Your task to perform on an android device: turn off improve location accuracy Image 0: 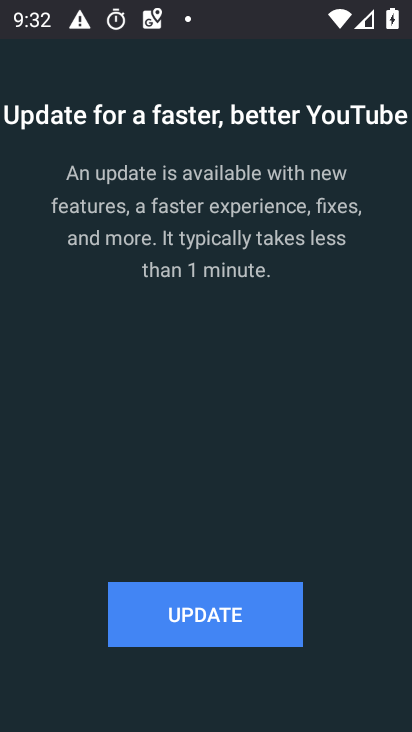
Step 0: press home button
Your task to perform on an android device: turn off improve location accuracy Image 1: 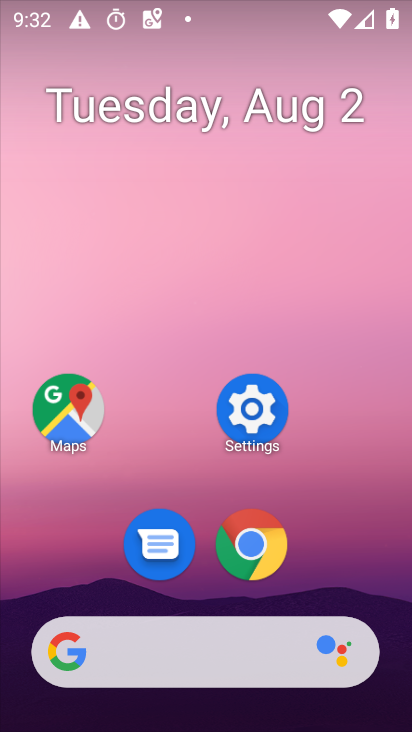
Step 1: click (250, 405)
Your task to perform on an android device: turn off improve location accuracy Image 2: 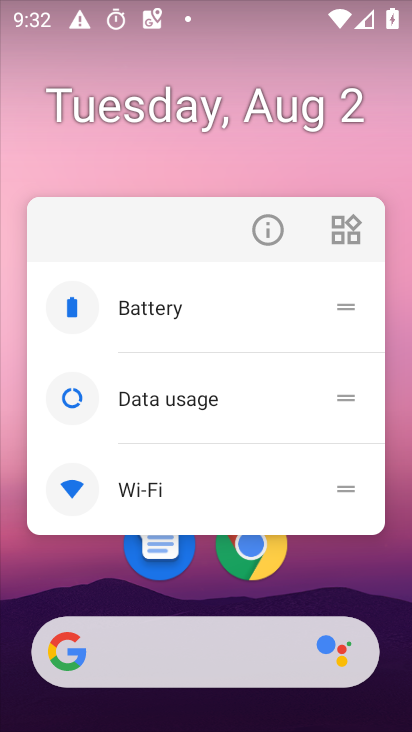
Step 2: click (352, 571)
Your task to perform on an android device: turn off improve location accuracy Image 3: 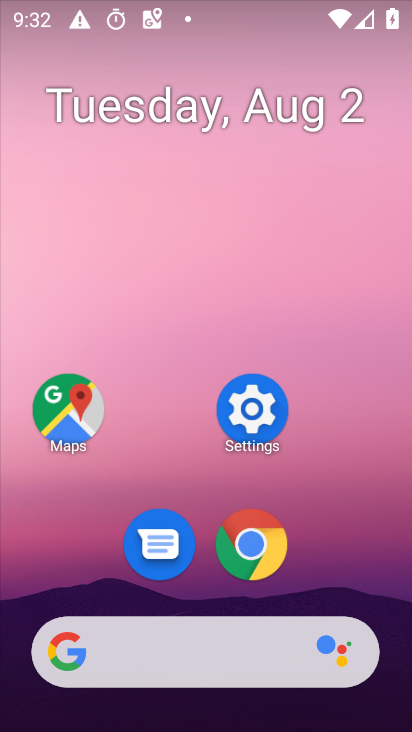
Step 3: click (244, 403)
Your task to perform on an android device: turn off improve location accuracy Image 4: 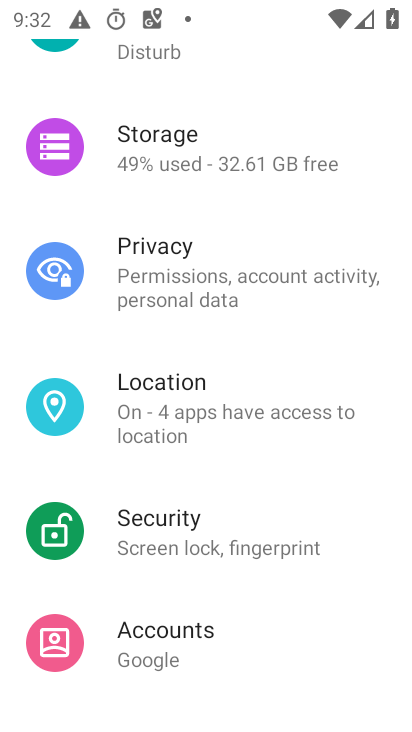
Step 4: drag from (265, 193) to (284, 330)
Your task to perform on an android device: turn off improve location accuracy Image 5: 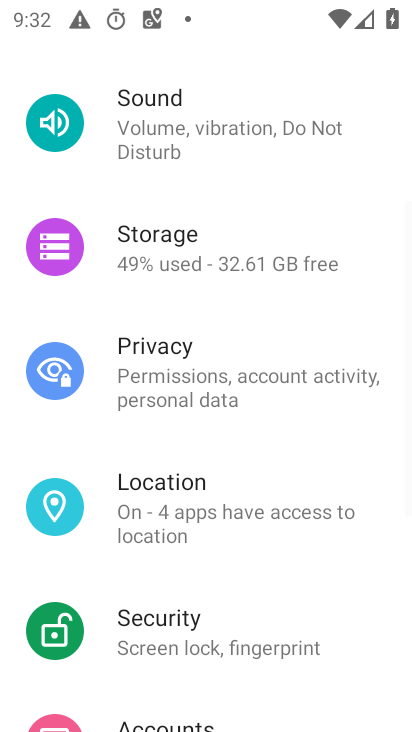
Step 5: click (182, 491)
Your task to perform on an android device: turn off improve location accuracy Image 6: 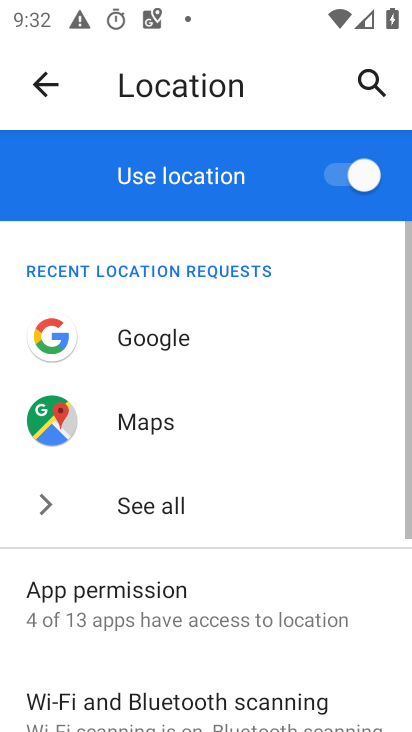
Step 6: drag from (206, 659) to (307, 66)
Your task to perform on an android device: turn off improve location accuracy Image 7: 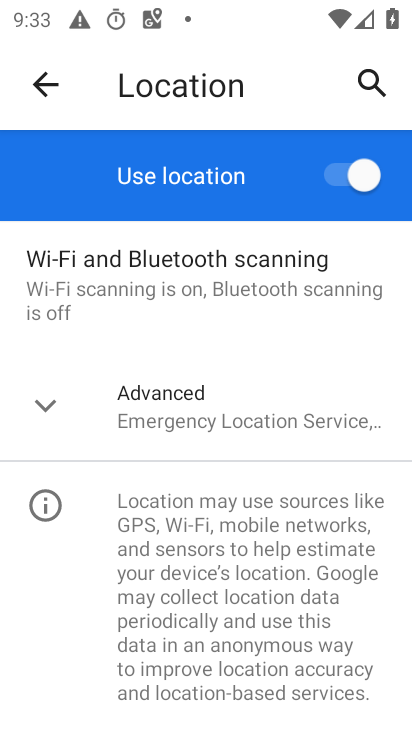
Step 7: click (172, 410)
Your task to perform on an android device: turn off improve location accuracy Image 8: 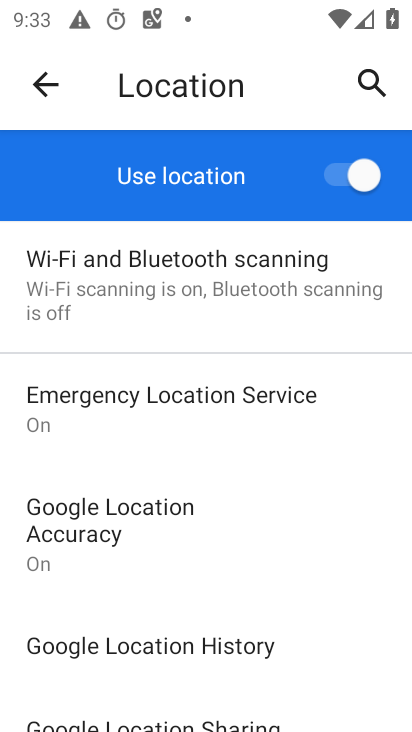
Step 8: click (108, 500)
Your task to perform on an android device: turn off improve location accuracy Image 9: 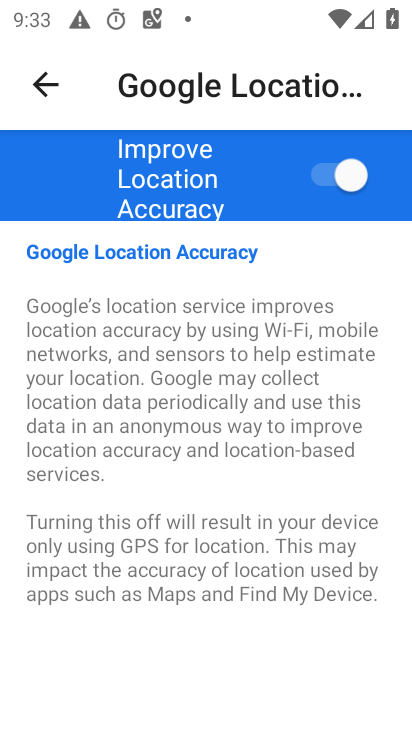
Step 9: click (328, 176)
Your task to perform on an android device: turn off improve location accuracy Image 10: 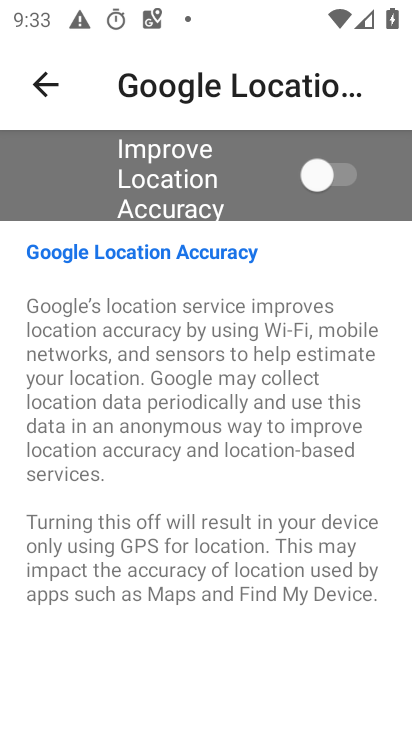
Step 10: task complete